Your task to perform on an android device: Go to sound settings Image 0: 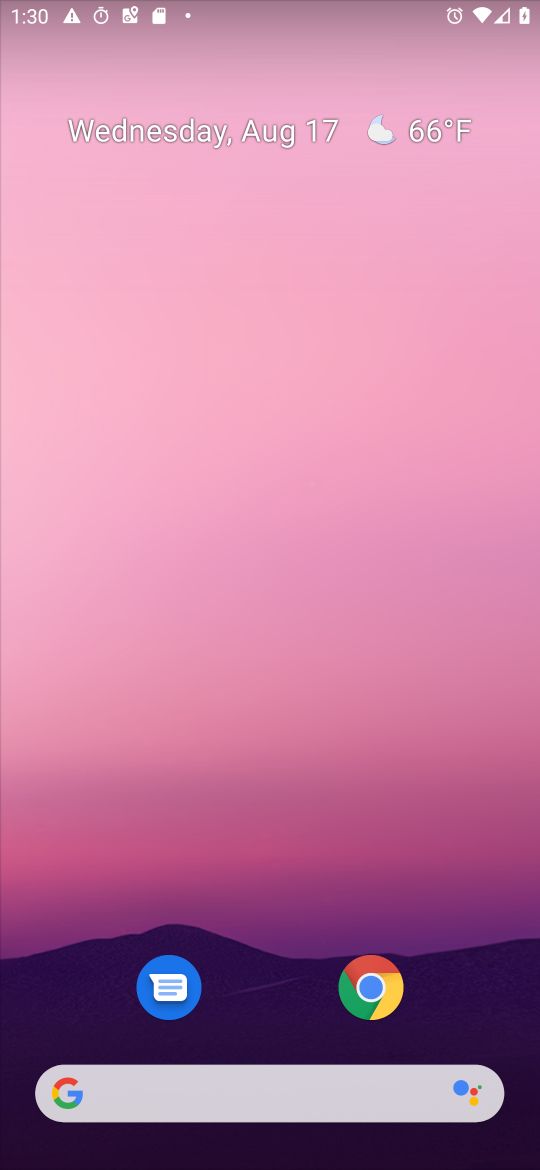
Step 0: drag from (25, 1106) to (410, 250)
Your task to perform on an android device: Go to sound settings Image 1: 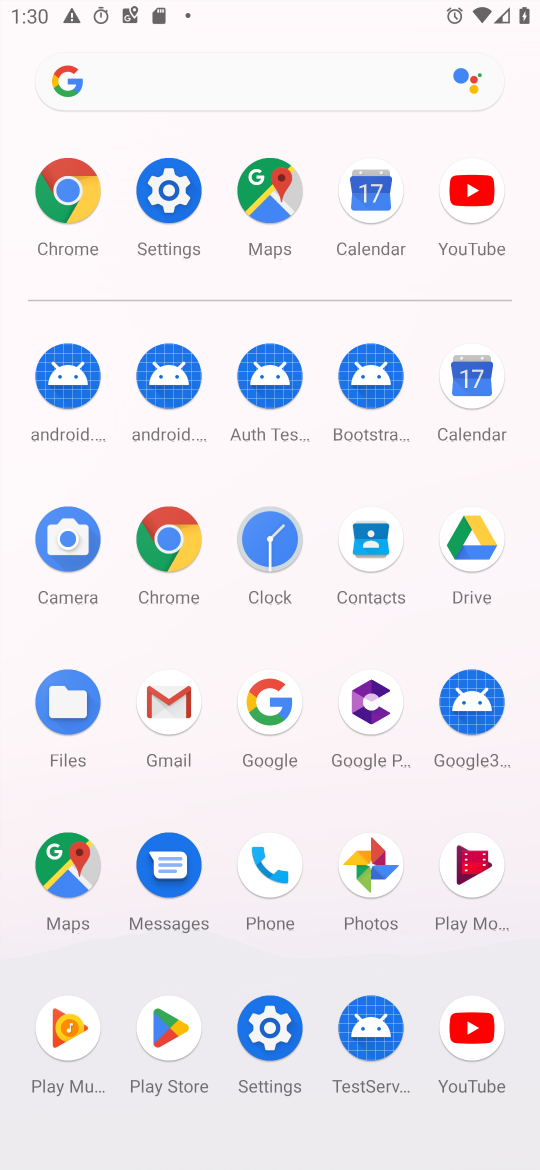
Step 1: click (255, 1033)
Your task to perform on an android device: Go to sound settings Image 2: 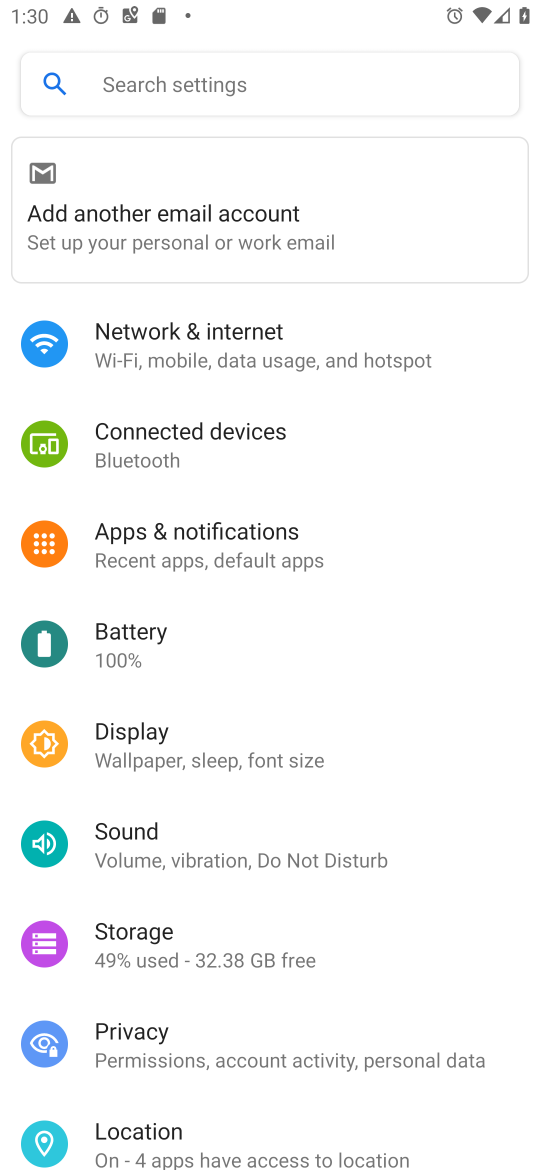
Step 2: click (152, 830)
Your task to perform on an android device: Go to sound settings Image 3: 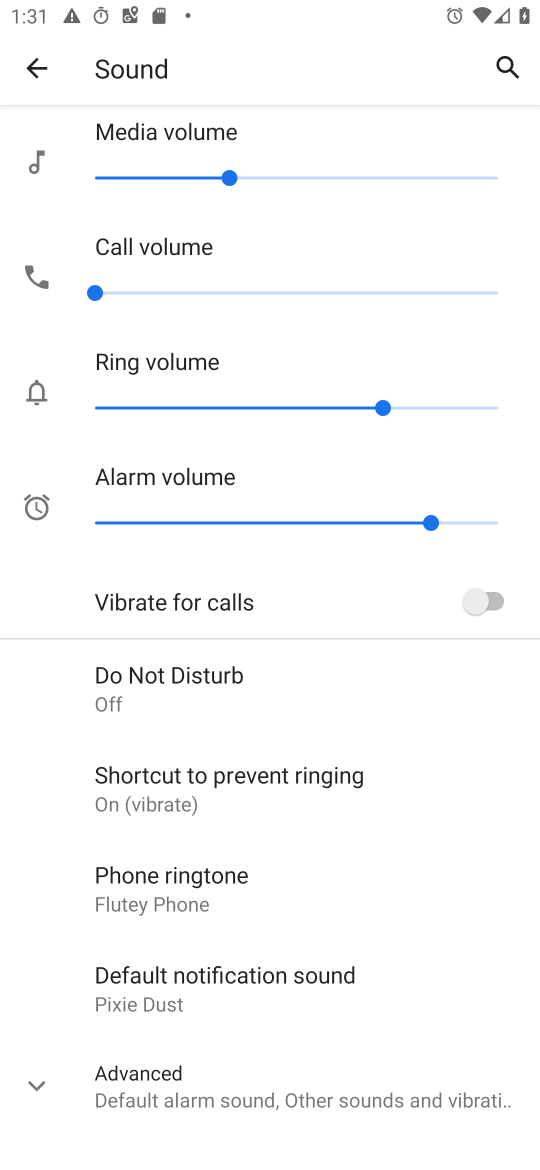
Step 3: task complete